Your task to perform on an android device: Check the news Image 0: 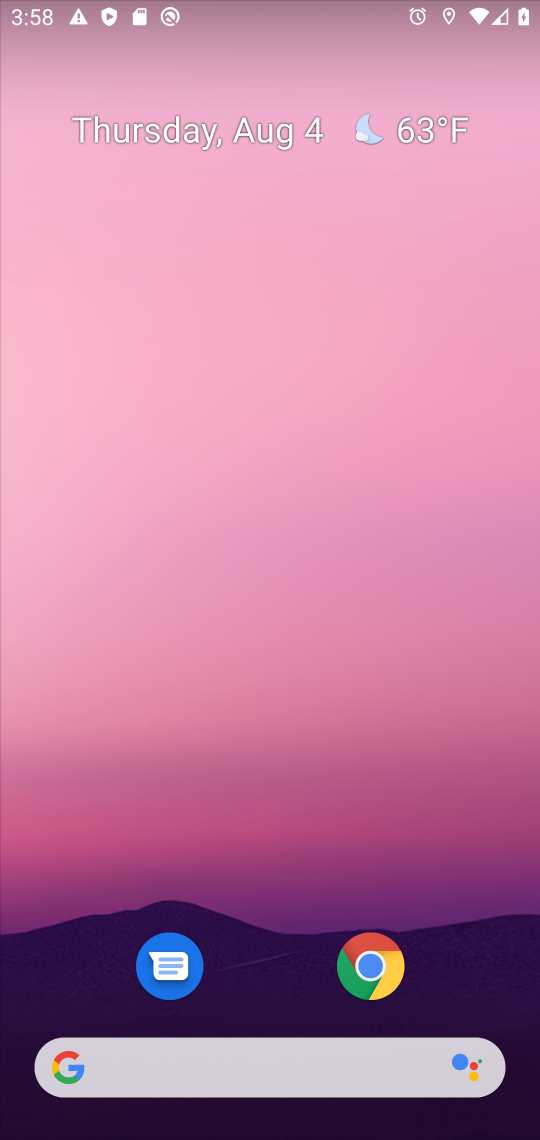
Step 0: click (70, 1074)
Your task to perform on an android device: Check the news Image 1: 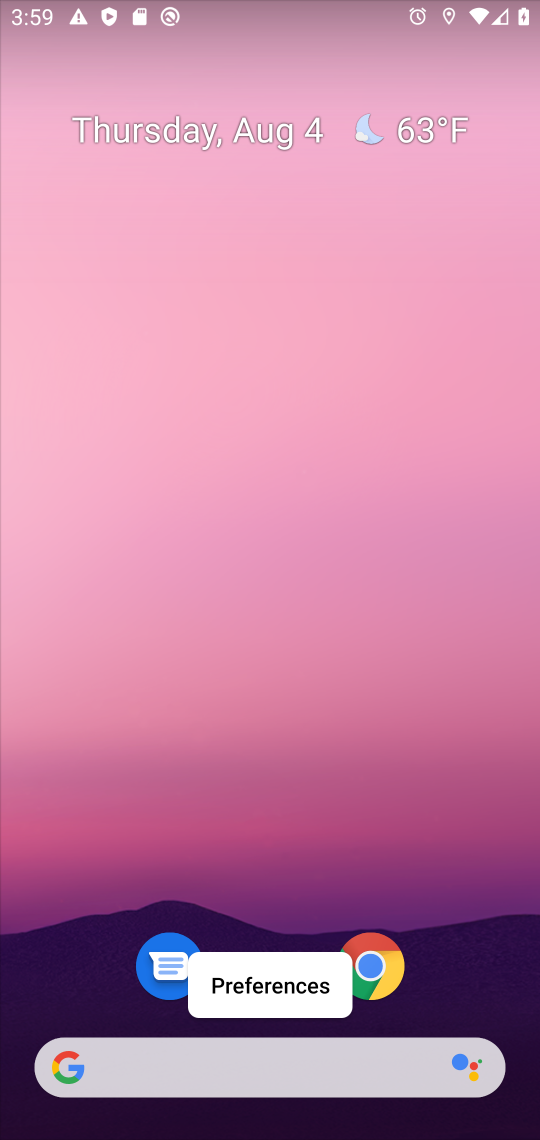
Step 1: click (58, 1064)
Your task to perform on an android device: Check the news Image 2: 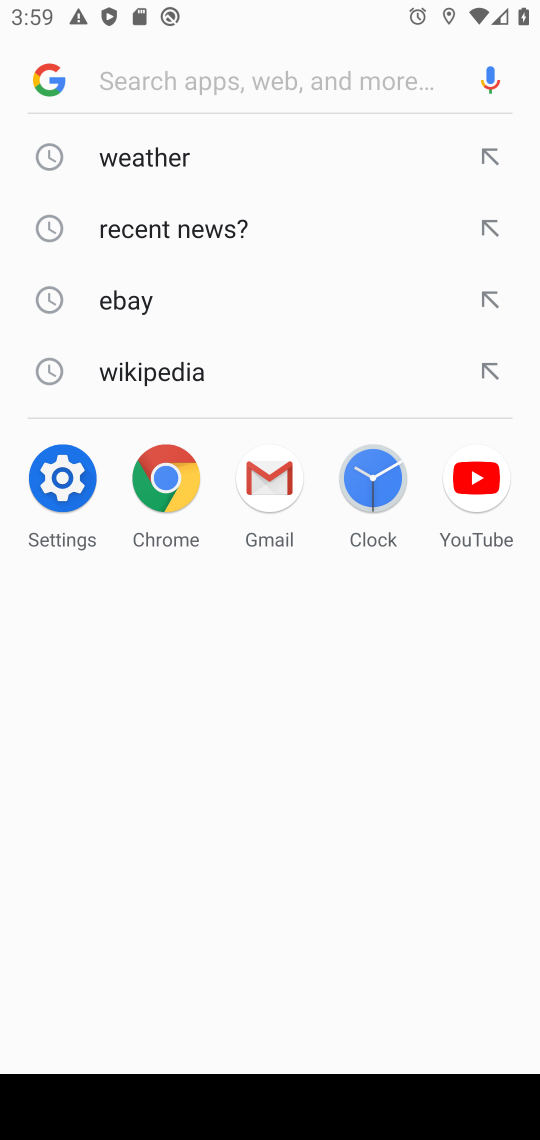
Step 2: type "news"
Your task to perform on an android device: Check the news Image 3: 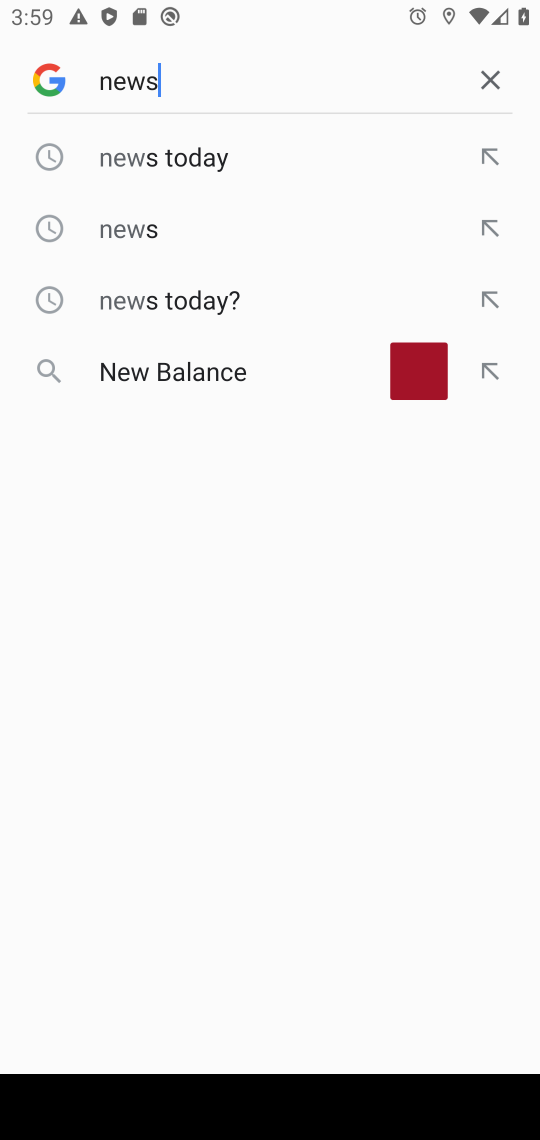
Step 3: press enter
Your task to perform on an android device: Check the news Image 4: 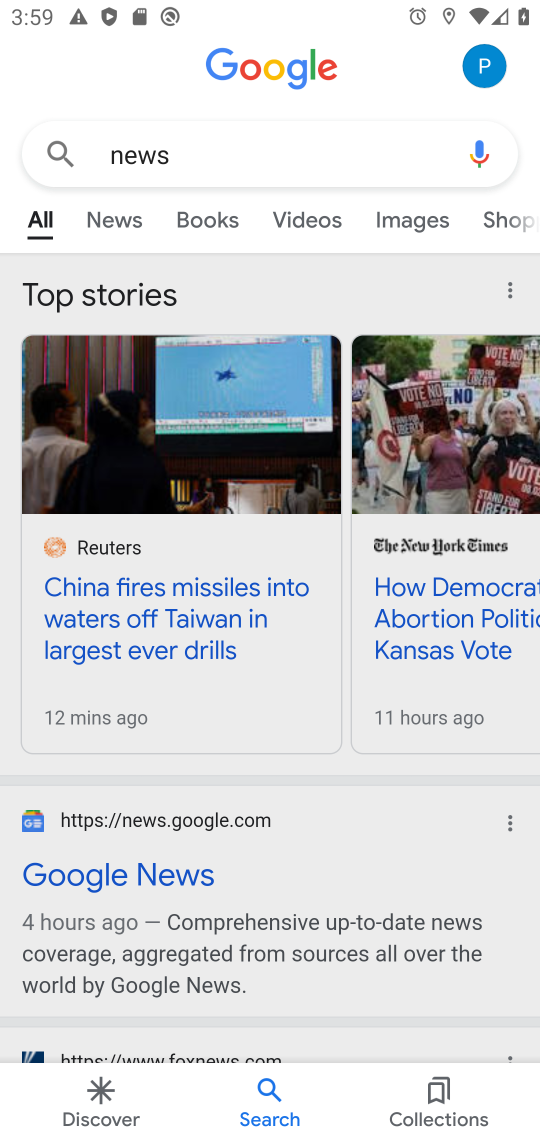
Step 4: task complete